Your task to perform on an android device: Open the Play Movies app and select the watchlist tab. Image 0: 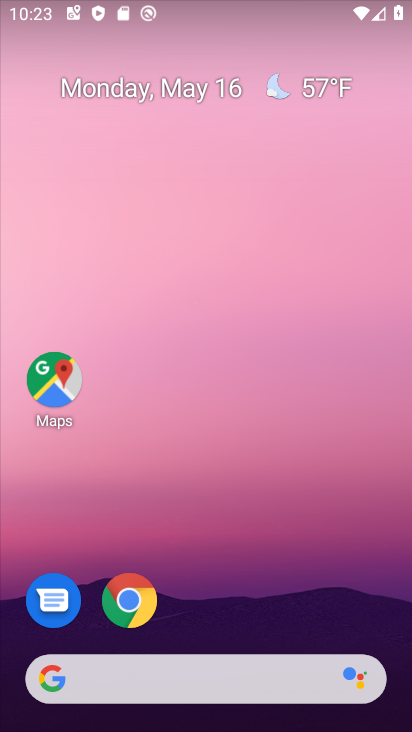
Step 0: drag from (319, 585) to (324, 67)
Your task to perform on an android device: Open the Play Movies app and select the watchlist tab. Image 1: 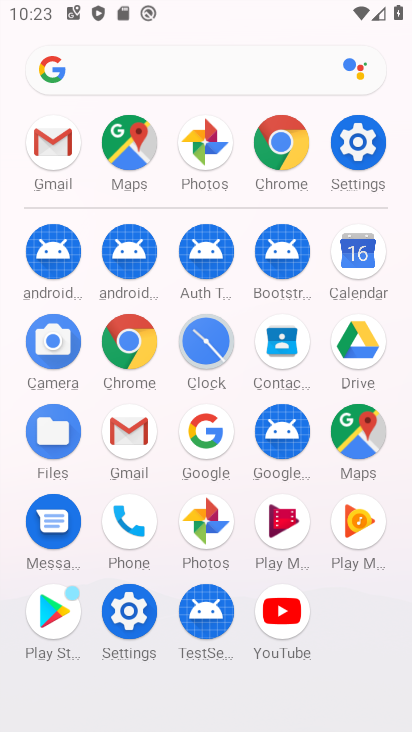
Step 1: click (293, 528)
Your task to perform on an android device: Open the Play Movies app and select the watchlist tab. Image 2: 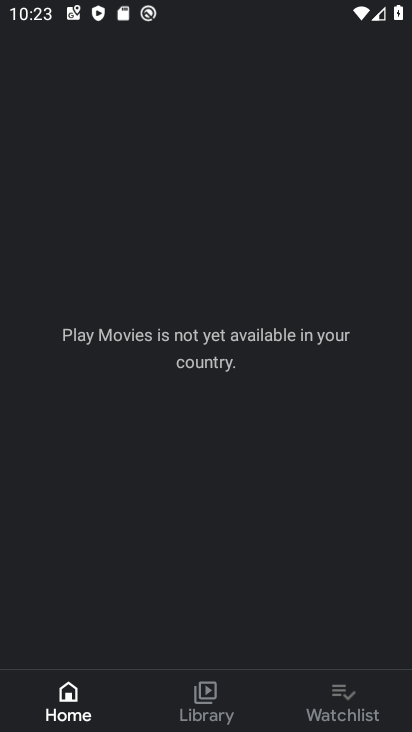
Step 2: click (355, 705)
Your task to perform on an android device: Open the Play Movies app and select the watchlist tab. Image 3: 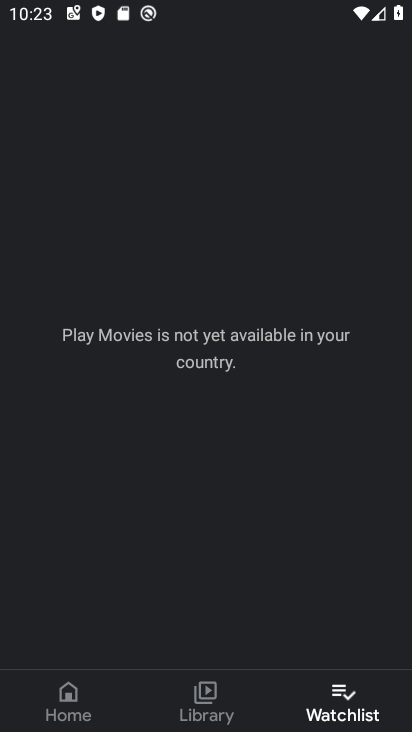
Step 3: task complete